Your task to perform on an android device: turn off notifications in google photos Image 0: 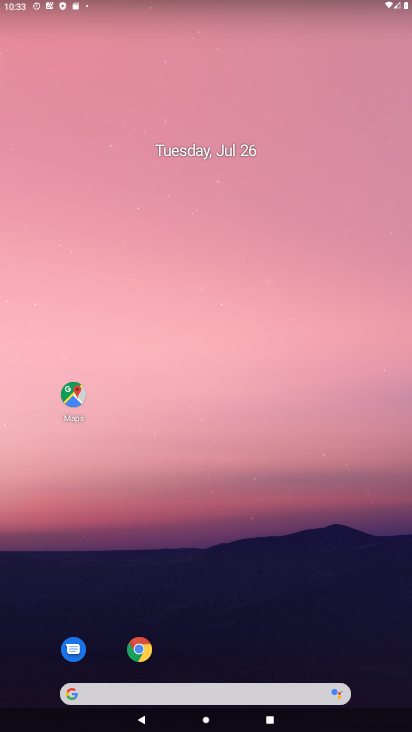
Step 0: drag from (171, 662) to (227, 1)
Your task to perform on an android device: turn off notifications in google photos Image 1: 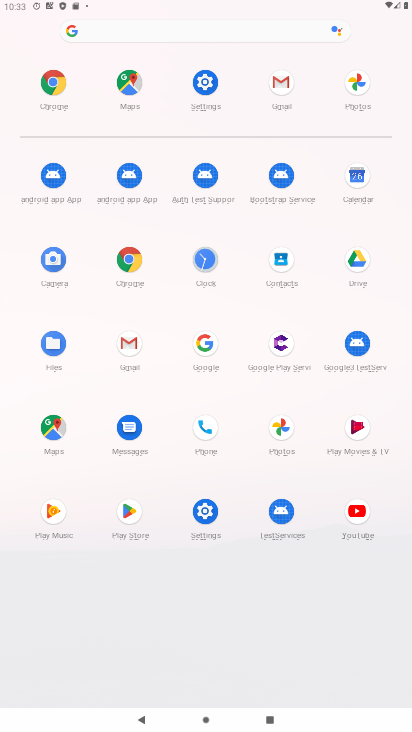
Step 1: click (281, 423)
Your task to perform on an android device: turn off notifications in google photos Image 2: 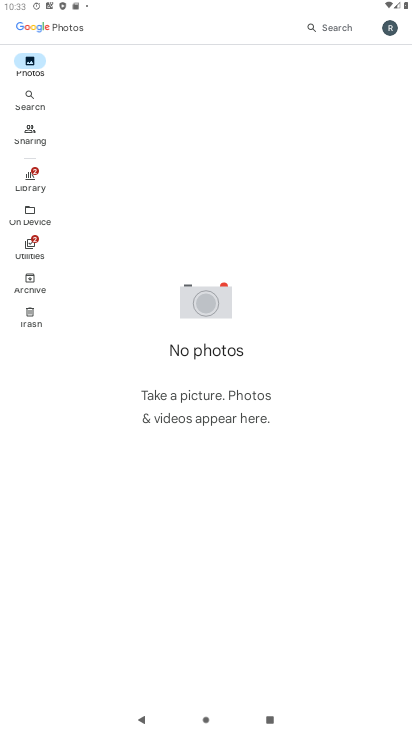
Step 2: drag from (252, 587) to (263, 270)
Your task to perform on an android device: turn off notifications in google photos Image 3: 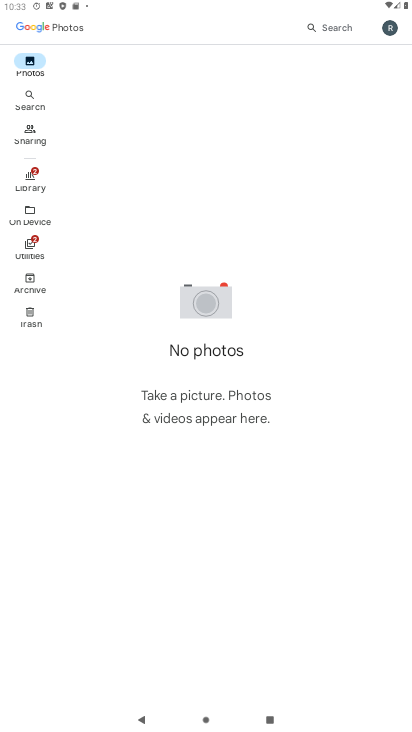
Step 3: press home button
Your task to perform on an android device: turn off notifications in google photos Image 4: 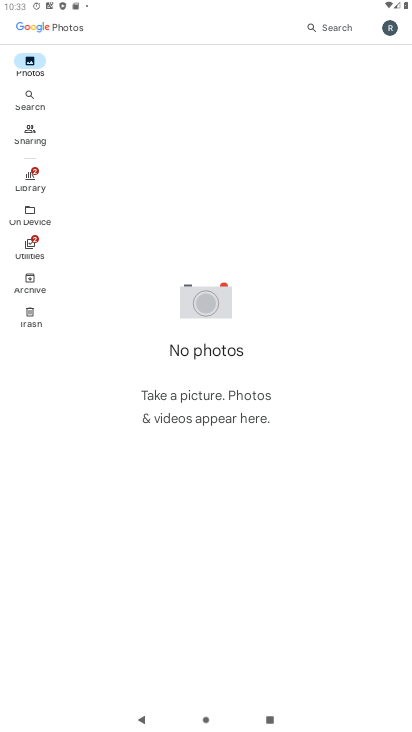
Step 4: press home button
Your task to perform on an android device: turn off notifications in google photos Image 5: 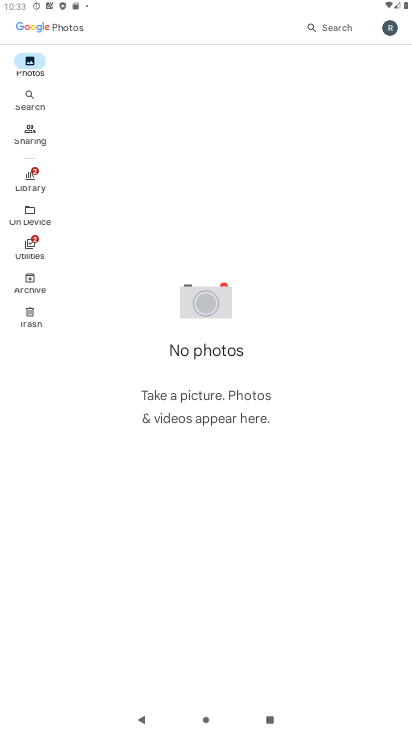
Step 5: click (226, 209)
Your task to perform on an android device: turn off notifications in google photos Image 6: 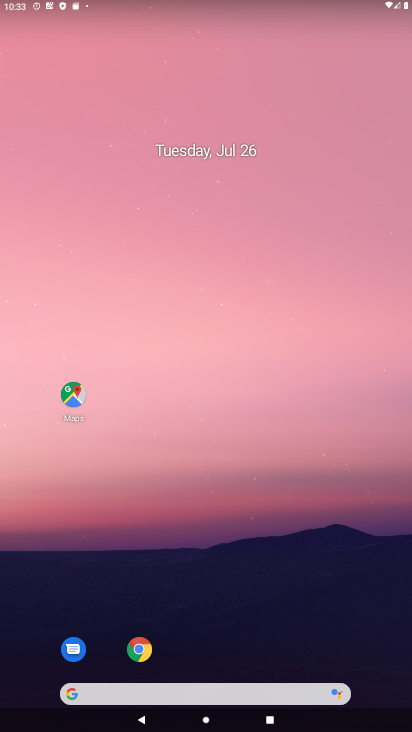
Step 6: drag from (188, 649) to (233, 87)
Your task to perform on an android device: turn off notifications in google photos Image 7: 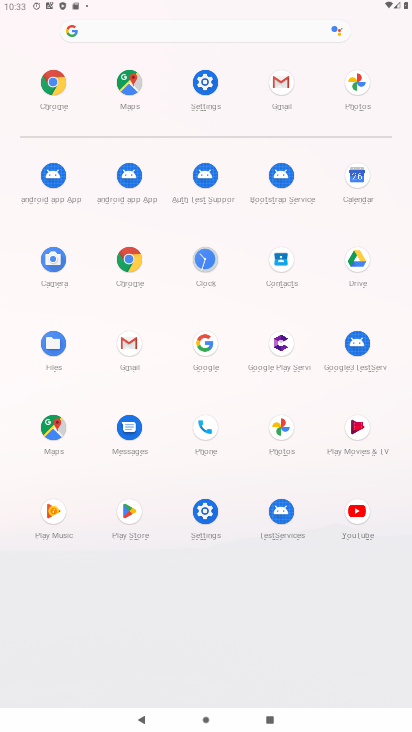
Step 7: click (278, 418)
Your task to perform on an android device: turn off notifications in google photos Image 8: 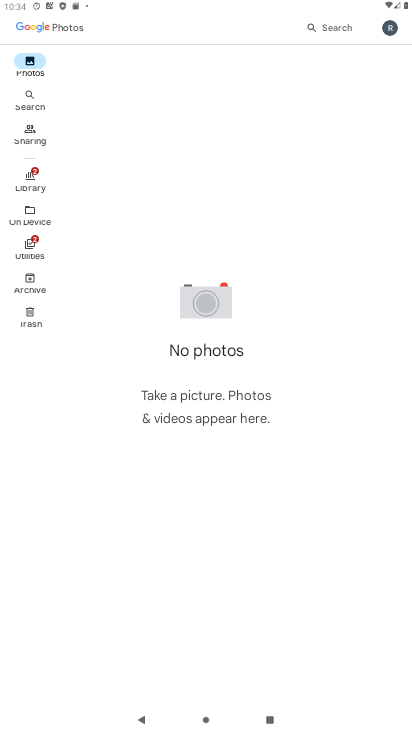
Step 8: drag from (197, 543) to (217, 395)
Your task to perform on an android device: turn off notifications in google photos Image 9: 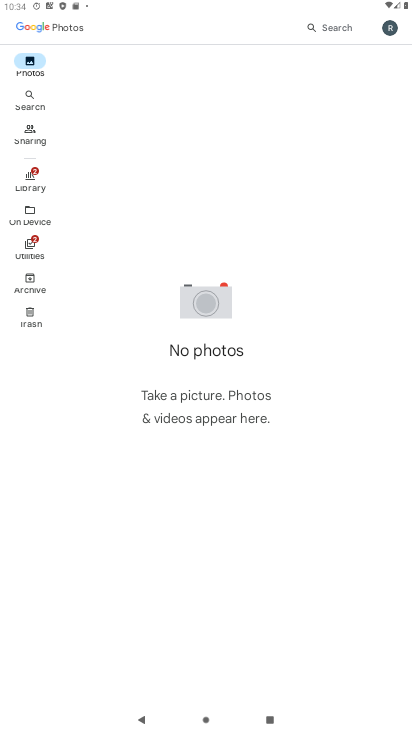
Step 9: press home button
Your task to perform on an android device: turn off notifications in google photos Image 10: 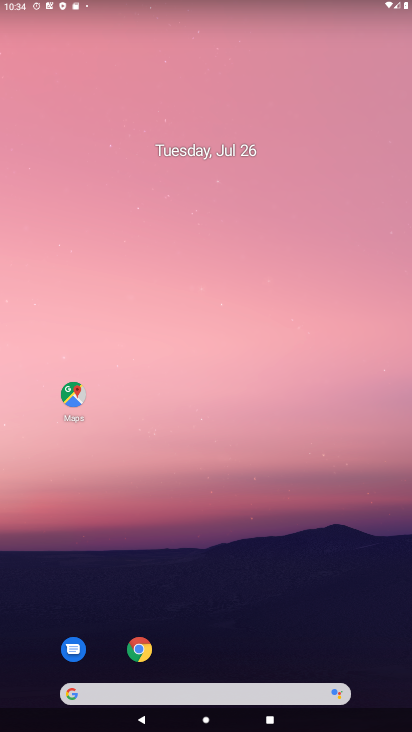
Step 10: drag from (185, 633) to (216, 129)
Your task to perform on an android device: turn off notifications in google photos Image 11: 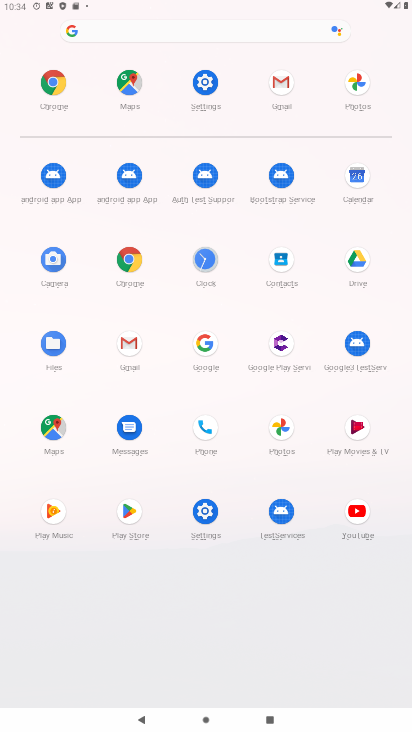
Step 11: click (283, 426)
Your task to perform on an android device: turn off notifications in google photos Image 12: 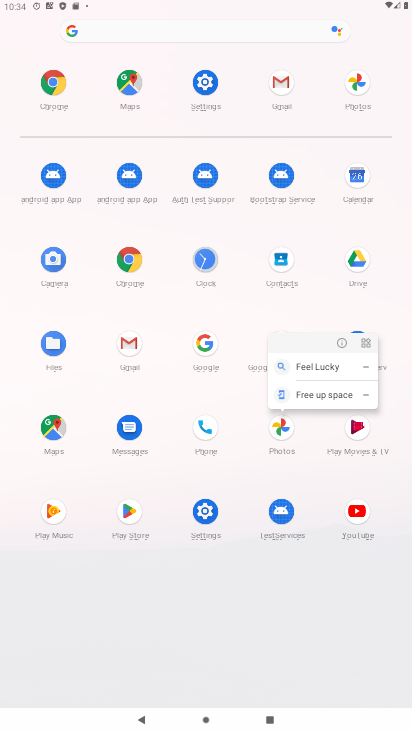
Step 12: click (339, 343)
Your task to perform on an android device: turn off notifications in google photos Image 13: 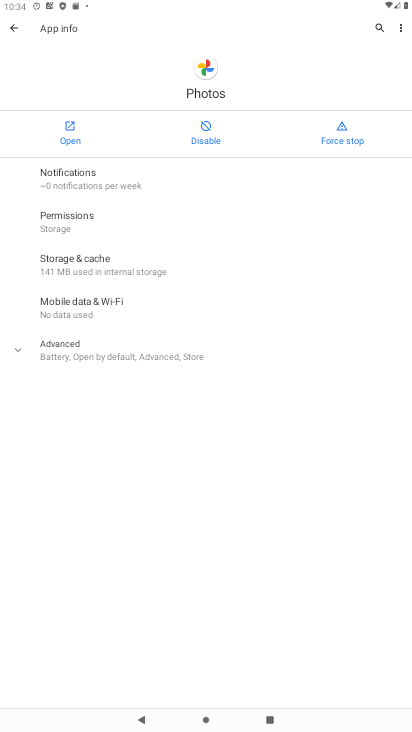
Step 13: click (69, 128)
Your task to perform on an android device: turn off notifications in google photos Image 14: 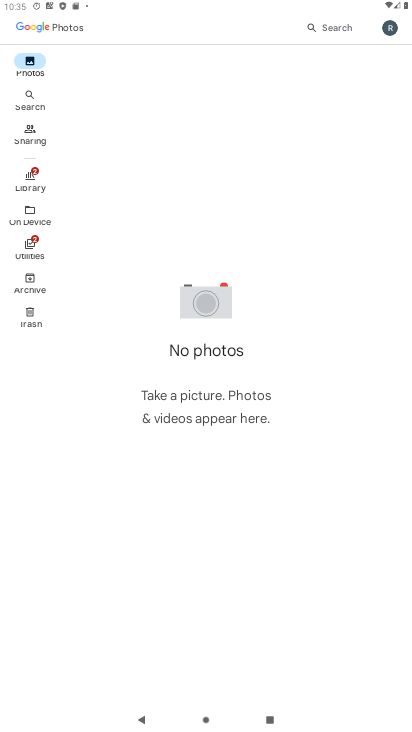
Step 14: drag from (210, 528) to (232, 385)
Your task to perform on an android device: turn off notifications in google photos Image 15: 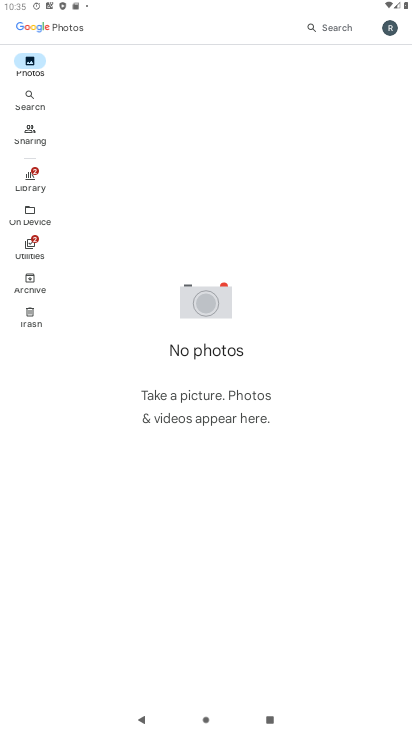
Step 15: click (389, 32)
Your task to perform on an android device: turn off notifications in google photos Image 16: 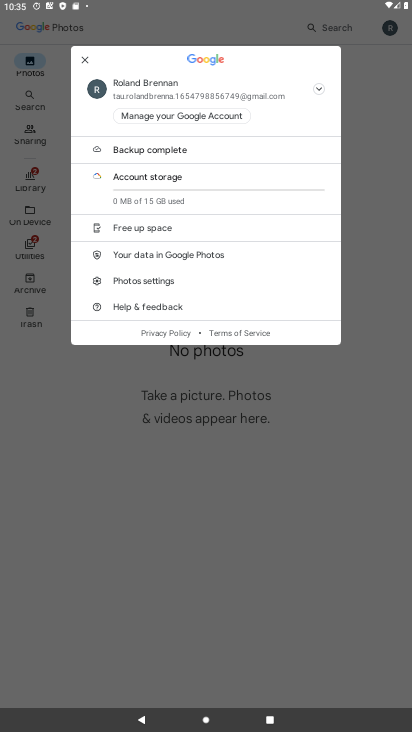
Step 16: click (133, 277)
Your task to perform on an android device: turn off notifications in google photos Image 17: 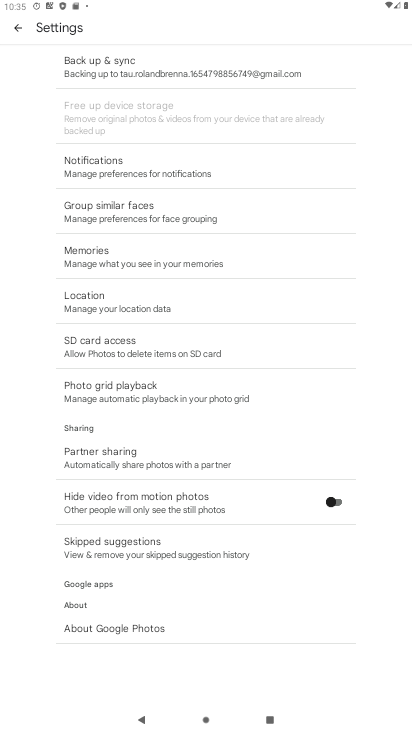
Step 17: drag from (237, 583) to (238, 309)
Your task to perform on an android device: turn off notifications in google photos Image 18: 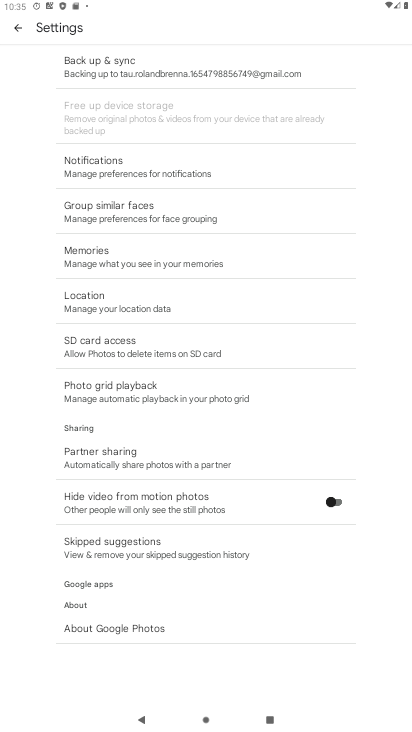
Step 18: click (125, 175)
Your task to perform on an android device: turn off notifications in google photos Image 19: 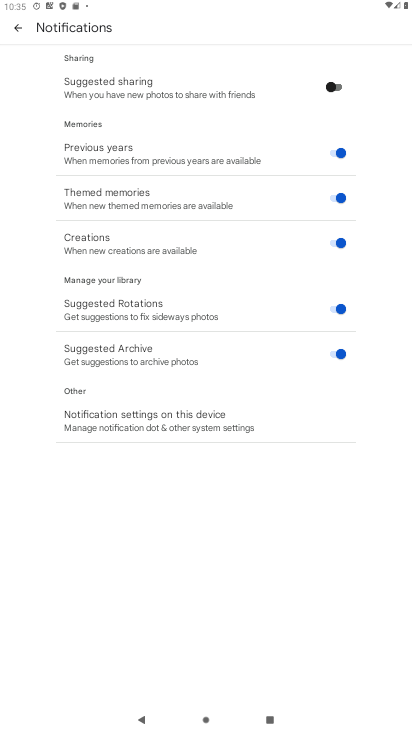
Step 19: drag from (188, 487) to (201, 255)
Your task to perform on an android device: turn off notifications in google photos Image 20: 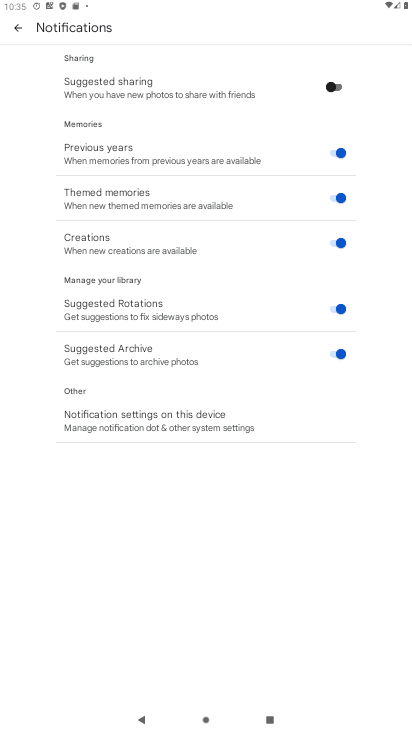
Step 20: click (127, 423)
Your task to perform on an android device: turn off notifications in google photos Image 21: 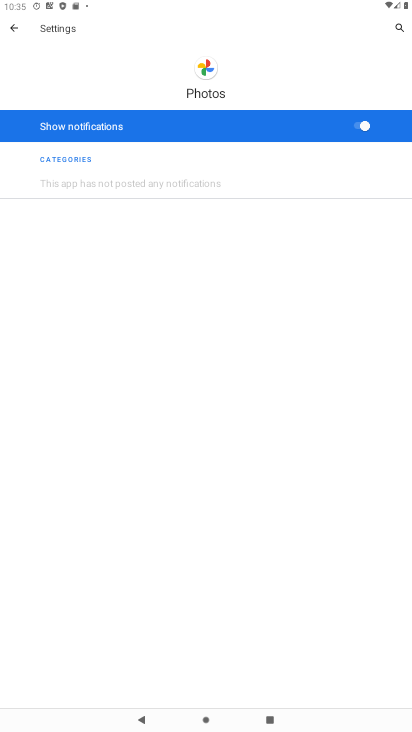
Step 21: click (361, 113)
Your task to perform on an android device: turn off notifications in google photos Image 22: 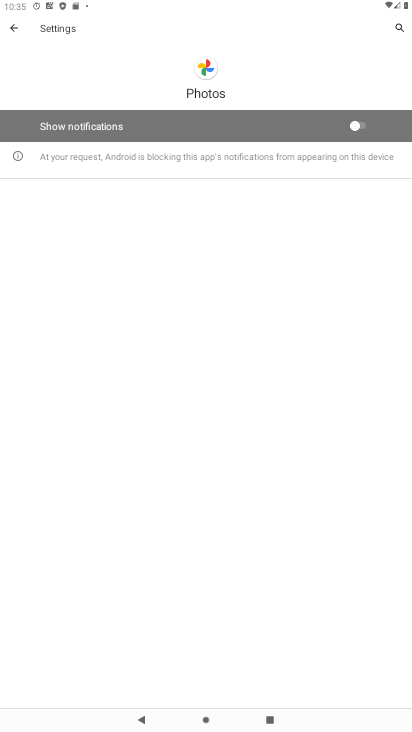
Step 22: task complete